Your task to perform on an android device: Open the web browser Image 0: 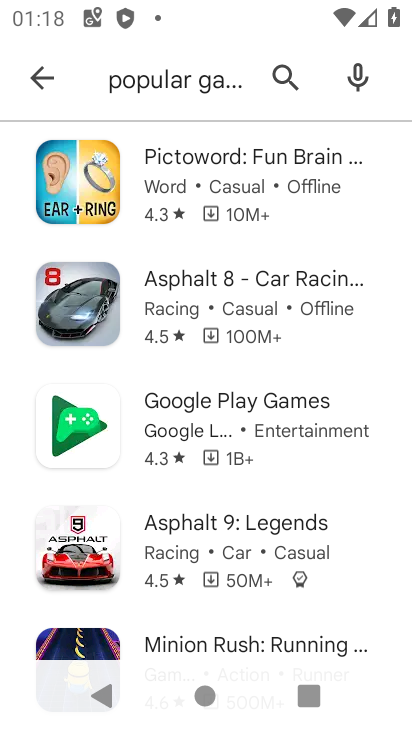
Step 0: press home button
Your task to perform on an android device: Open the web browser Image 1: 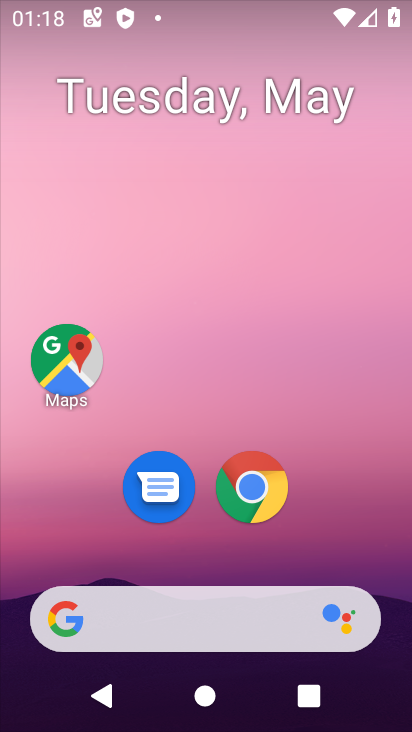
Step 1: click (241, 476)
Your task to perform on an android device: Open the web browser Image 2: 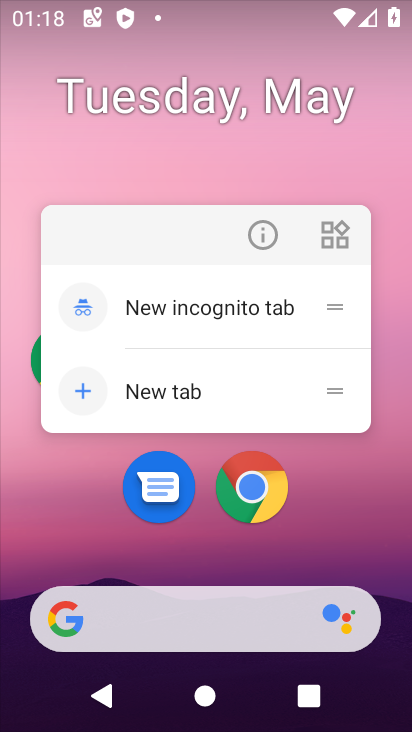
Step 2: click (244, 472)
Your task to perform on an android device: Open the web browser Image 3: 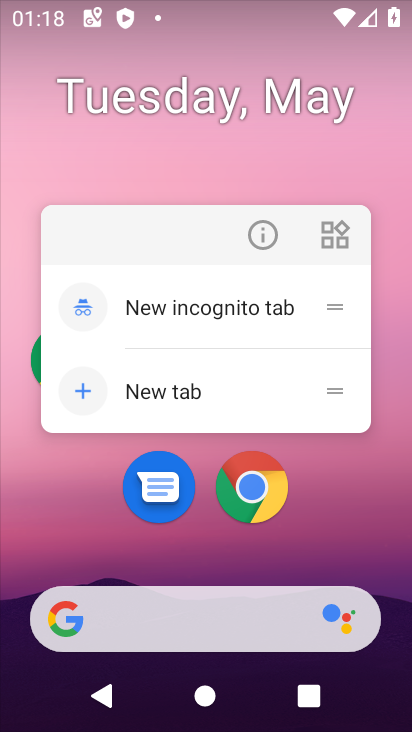
Step 3: click (246, 470)
Your task to perform on an android device: Open the web browser Image 4: 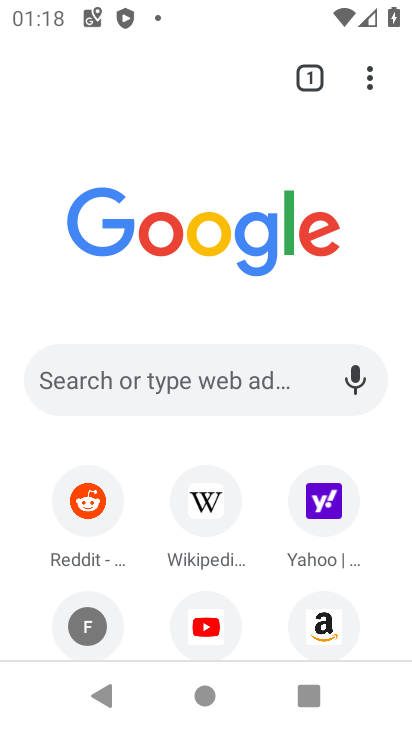
Step 4: task complete